Your task to perform on an android device: turn off airplane mode Image 0: 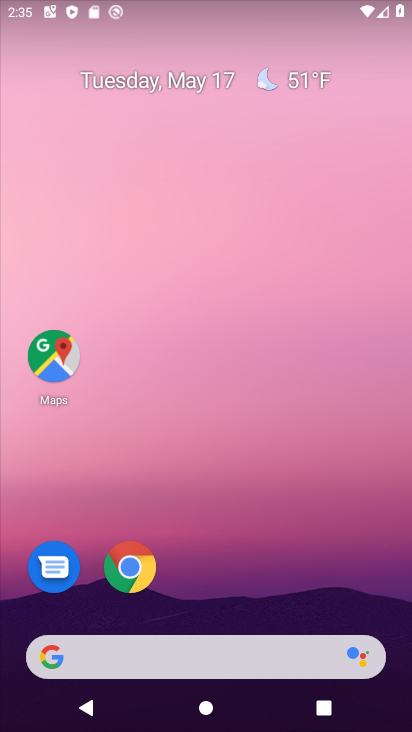
Step 0: drag from (246, 662) to (60, 3)
Your task to perform on an android device: turn off airplane mode Image 1: 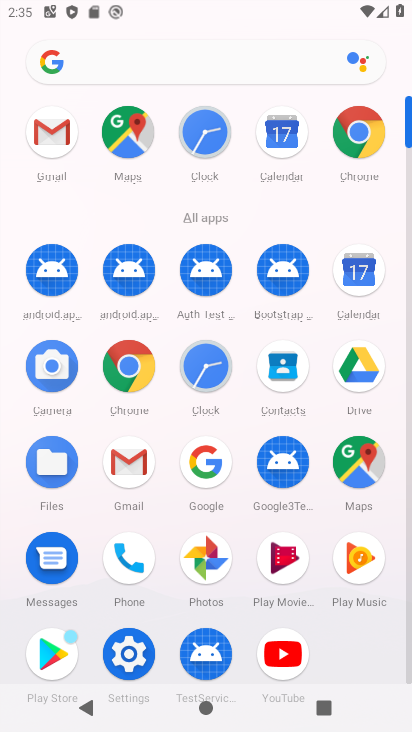
Step 1: click (106, 673)
Your task to perform on an android device: turn off airplane mode Image 2: 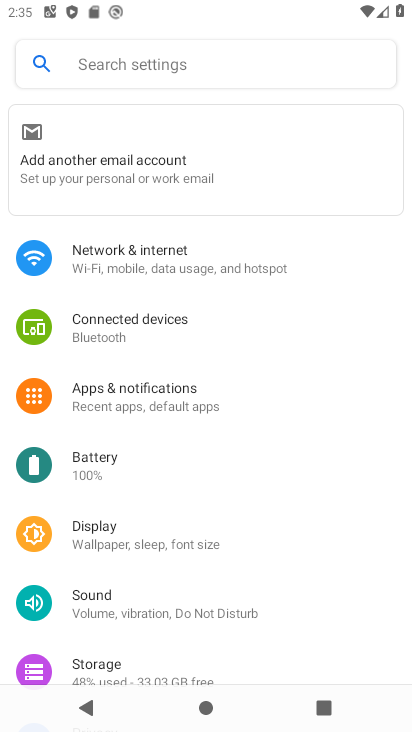
Step 2: click (147, 257)
Your task to perform on an android device: turn off airplane mode Image 3: 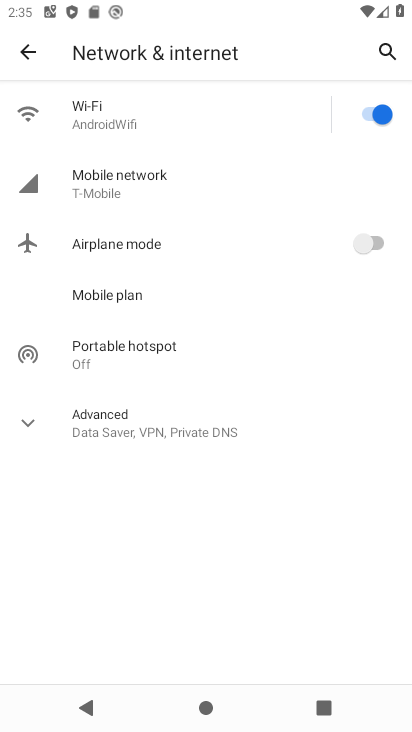
Step 3: task complete